Your task to perform on an android device: Open Google Maps Image 0: 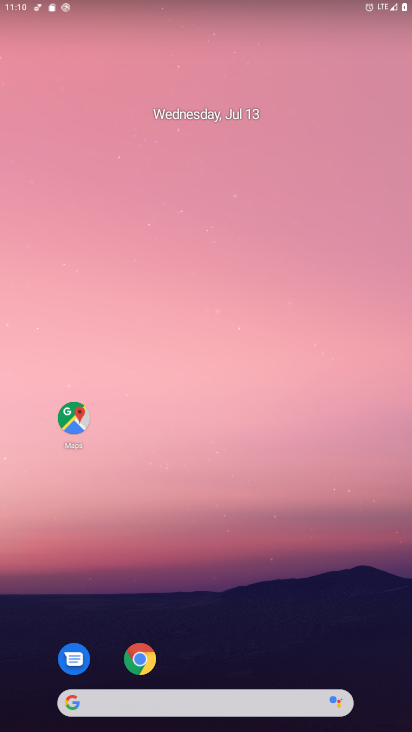
Step 0: press home button
Your task to perform on an android device: Open Google Maps Image 1: 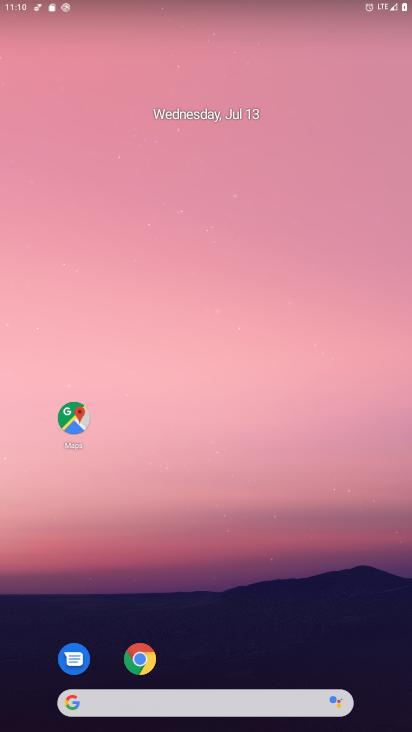
Step 1: click (75, 411)
Your task to perform on an android device: Open Google Maps Image 2: 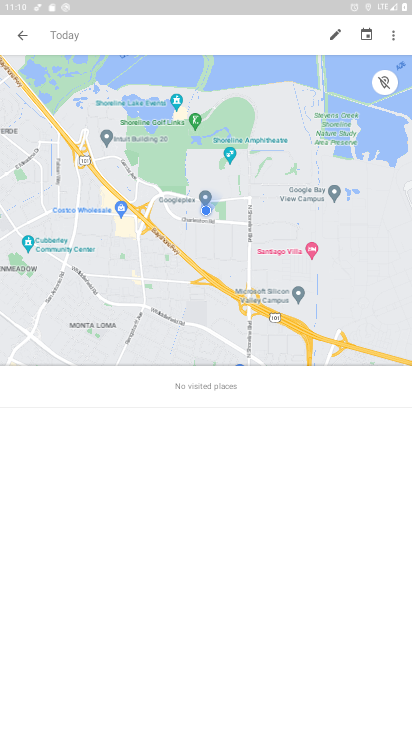
Step 2: click (19, 37)
Your task to perform on an android device: Open Google Maps Image 3: 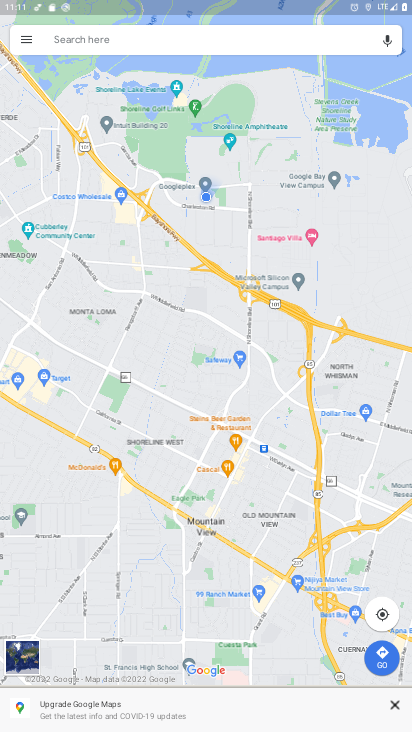
Step 3: task complete